Your task to perform on an android device: Check the weather Image 0: 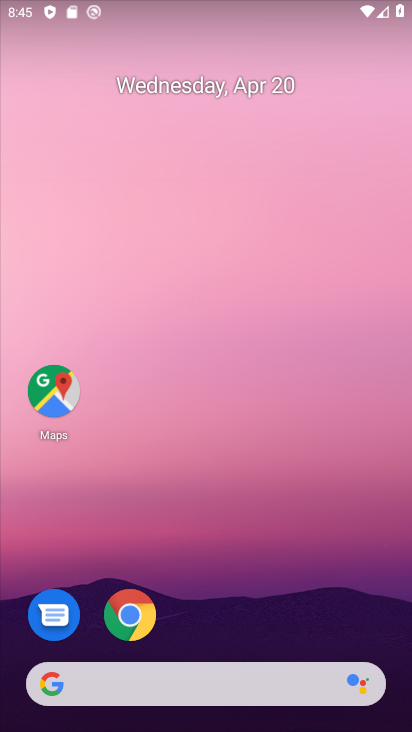
Step 0: drag from (262, 503) to (253, 227)
Your task to perform on an android device: Check the weather Image 1: 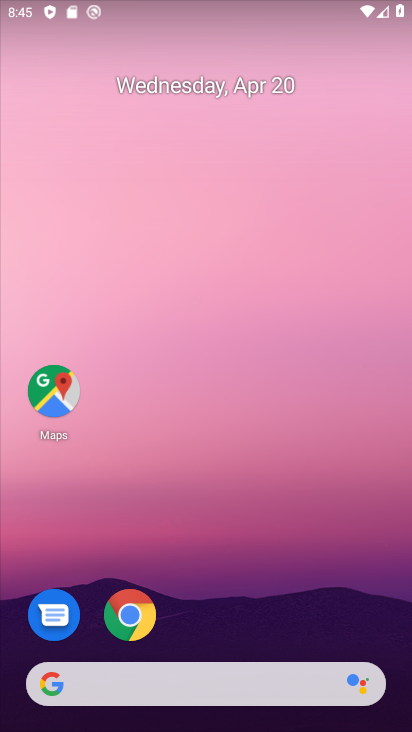
Step 1: drag from (255, 548) to (294, 197)
Your task to perform on an android device: Check the weather Image 2: 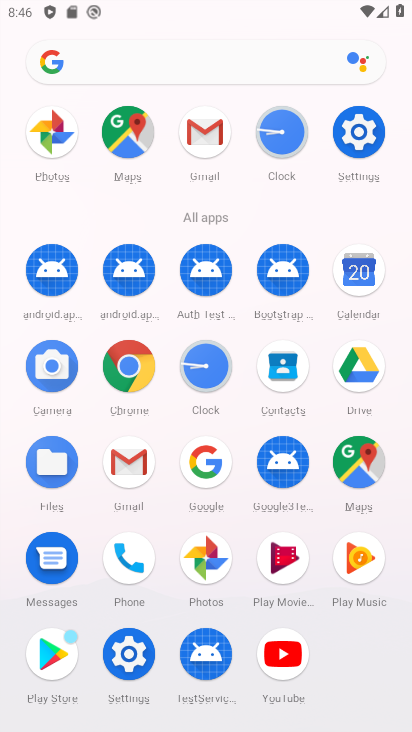
Step 2: click (206, 454)
Your task to perform on an android device: Check the weather Image 3: 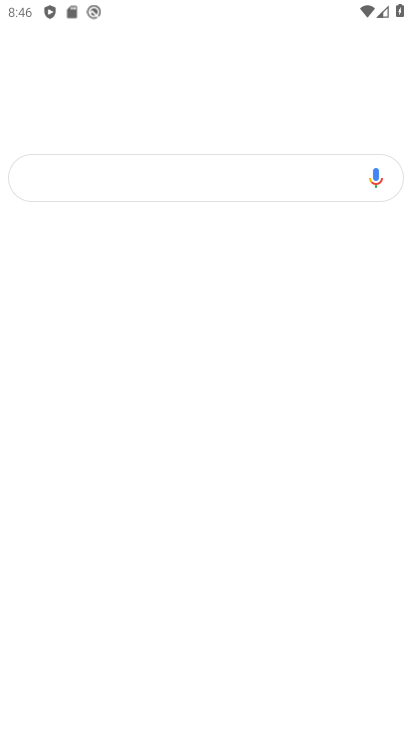
Step 3: click (199, 454)
Your task to perform on an android device: Check the weather Image 4: 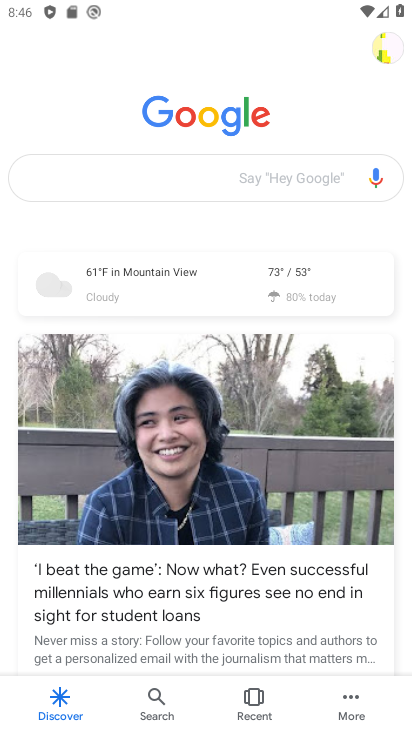
Step 4: click (266, 165)
Your task to perform on an android device: Check the weather Image 5: 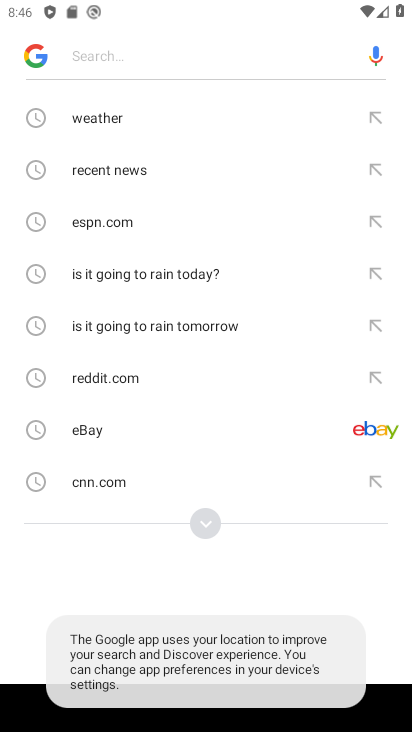
Step 5: type "Check the weather"
Your task to perform on an android device: Check the weather Image 6: 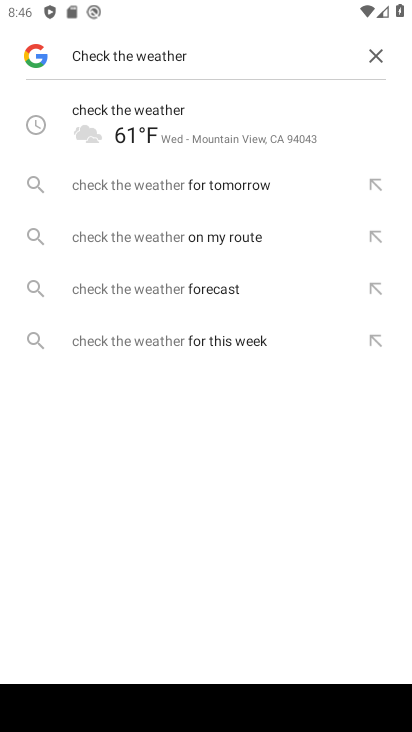
Step 6: click (203, 119)
Your task to perform on an android device: Check the weather Image 7: 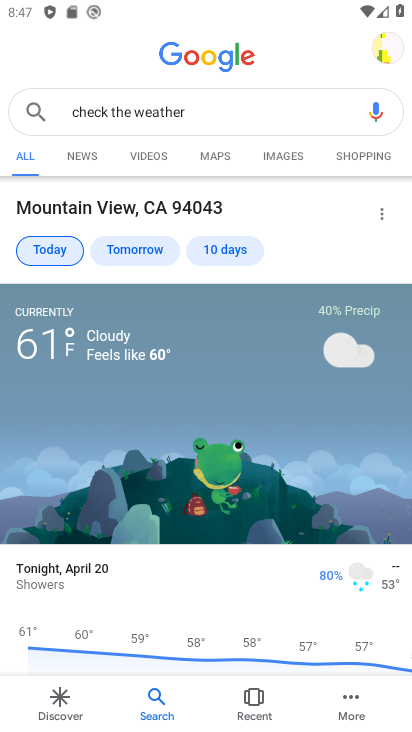
Step 7: task complete